Your task to perform on an android device: Clear all items from cart on ebay.com. Search for razer naga on ebay.com, select the first entry, and add it to the cart. Image 0: 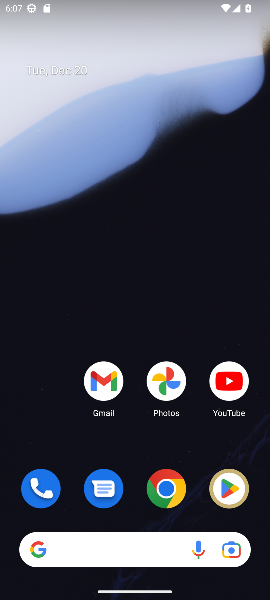
Step 0: press home button
Your task to perform on an android device: Clear all items from cart on ebay.com. Search for razer naga on ebay.com, select the first entry, and add it to the cart. Image 1: 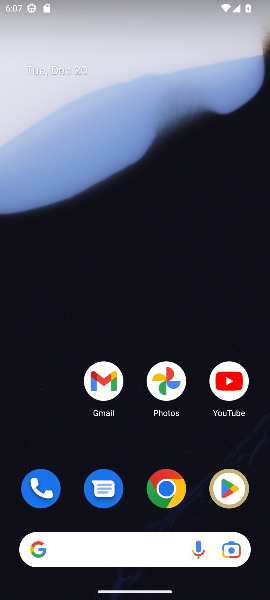
Step 1: drag from (58, 426) to (45, 52)
Your task to perform on an android device: Clear all items from cart on ebay.com. Search for razer naga on ebay.com, select the first entry, and add it to the cart. Image 2: 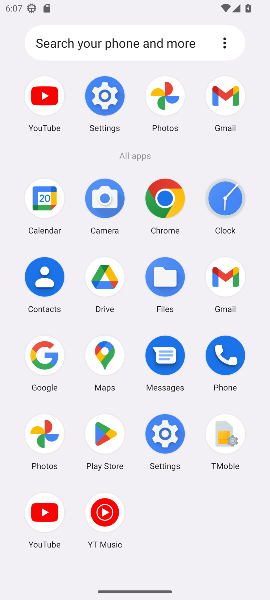
Step 2: click (38, 360)
Your task to perform on an android device: Clear all items from cart on ebay.com. Search for razer naga on ebay.com, select the first entry, and add it to the cart. Image 3: 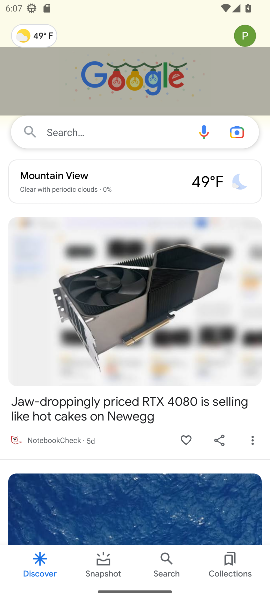
Step 3: press back button
Your task to perform on an android device: Clear all items from cart on ebay.com. Search for razer naga on ebay.com, select the first entry, and add it to the cart. Image 4: 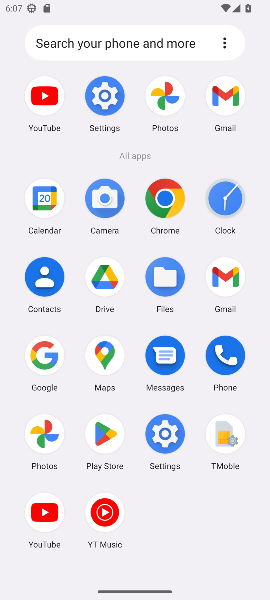
Step 4: click (61, 362)
Your task to perform on an android device: Clear all items from cart on ebay.com. Search for razer naga on ebay.com, select the first entry, and add it to the cart. Image 5: 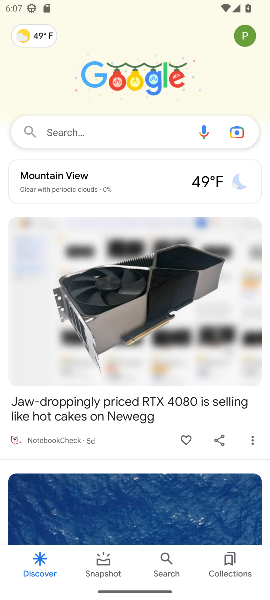
Step 5: click (65, 128)
Your task to perform on an android device: Clear all items from cart on ebay.com. Search for razer naga on ebay.com, select the first entry, and add it to the cart. Image 6: 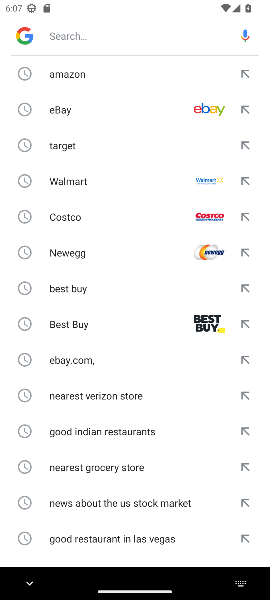
Step 6: type "ebay.com"
Your task to perform on an android device: Clear all items from cart on ebay.com. Search for razer naga on ebay.com, select the first entry, and add it to the cart. Image 7: 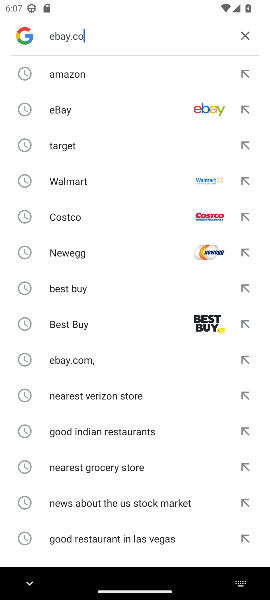
Step 7: press enter
Your task to perform on an android device: Clear all items from cart on ebay.com. Search for razer naga on ebay.com, select the first entry, and add it to the cart. Image 8: 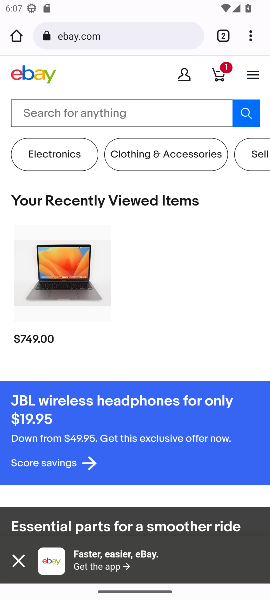
Step 8: click (226, 70)
Your task to perform on an android device: Clear all items from cart on ebay.com. Search for razer naga on ebay.com, select the first entry, and add it to the cart. Image 9: 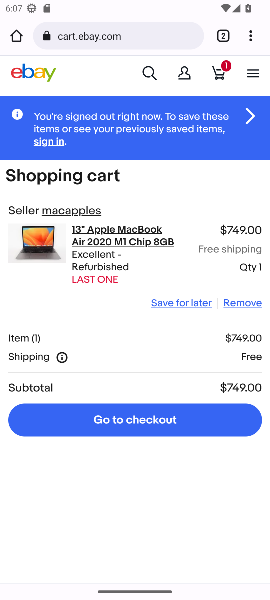
Step 9: click (242, 300)
Your task to perform on an android device: Clear all items from cart on ebay.com. Search for razer naga on ebay.com, select the first entry, and add it to the cart. Image 10: 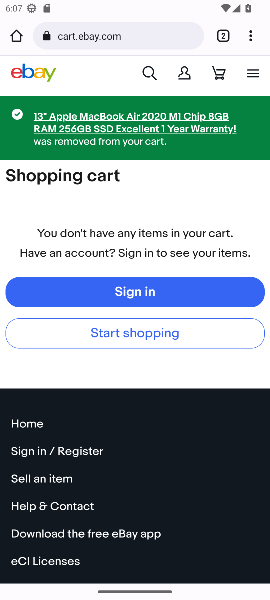
Step 10: click (150, 66)
Your task to perform on an android device: Clear all items from cart on ebay.com. Search for razer naga on ebay.com, select the first entry, and add it to the cart. Image 11: 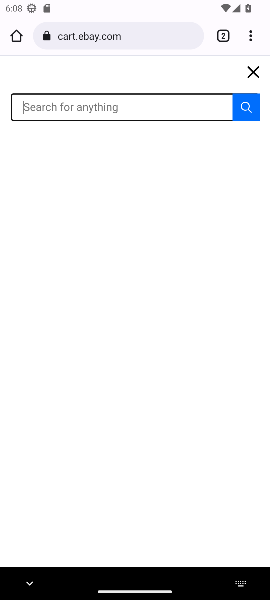
Step 11: type "razer naga"
Your task to perform on an android device: Clear all items from cart on ebay.com. Search for razer naga on ebay.com, select the first entry, and add it to the cart. Image 12: 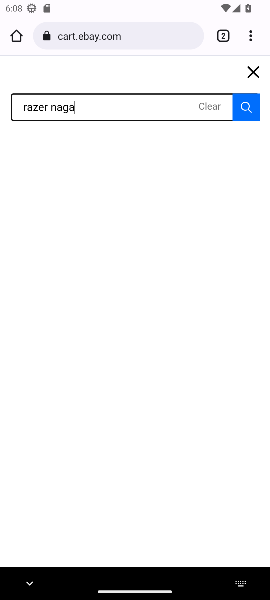
Step 12: press enter
Your task to perform on an android device: Clear all items from cart on ebay.com. Search for razer naga on ebay.com, select the first entry, and add it to the cart. Image 13: 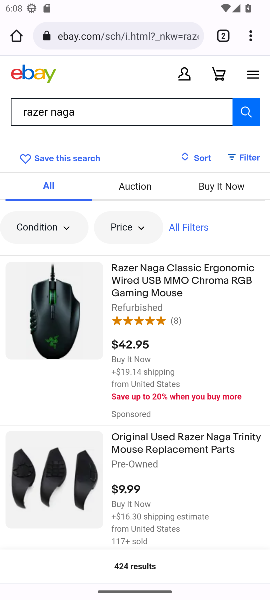
Step 13: click (140, 294)
Your task to perform on an android device: Clear all items from cart on ebay.com. Search for razer naga on ebay.com, select the first entry, and add it to the cart. Image 14: 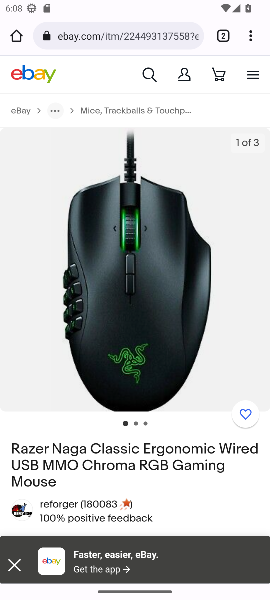
Step 14: drag from (179, 513) to (162, 225)
Your task to perform on an android device: Clear all items from cart on ebay.com. Search for razer naga on ebay.com, select the first entry, and add it to the cart. Image 15: 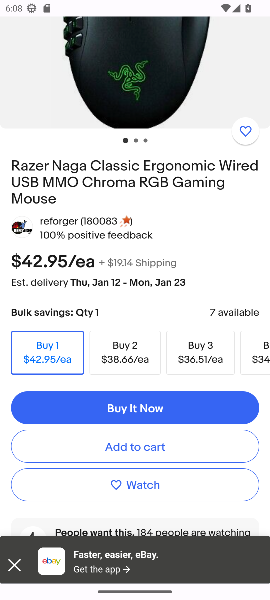
Step 15: click (107, 443)
Your task to perform on an android device: Clear all items from cart on ebay.com. Search for razer naga on ebay.com, select the first entry, and add it to the cart. Image 16: 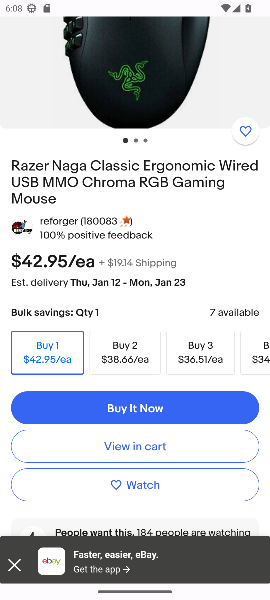
Step 16: task complete